Your task to perform on an android device: Search for dell xps on bestbuy.com, select the first entry, add it to the cart, then select checkout. Image 0: 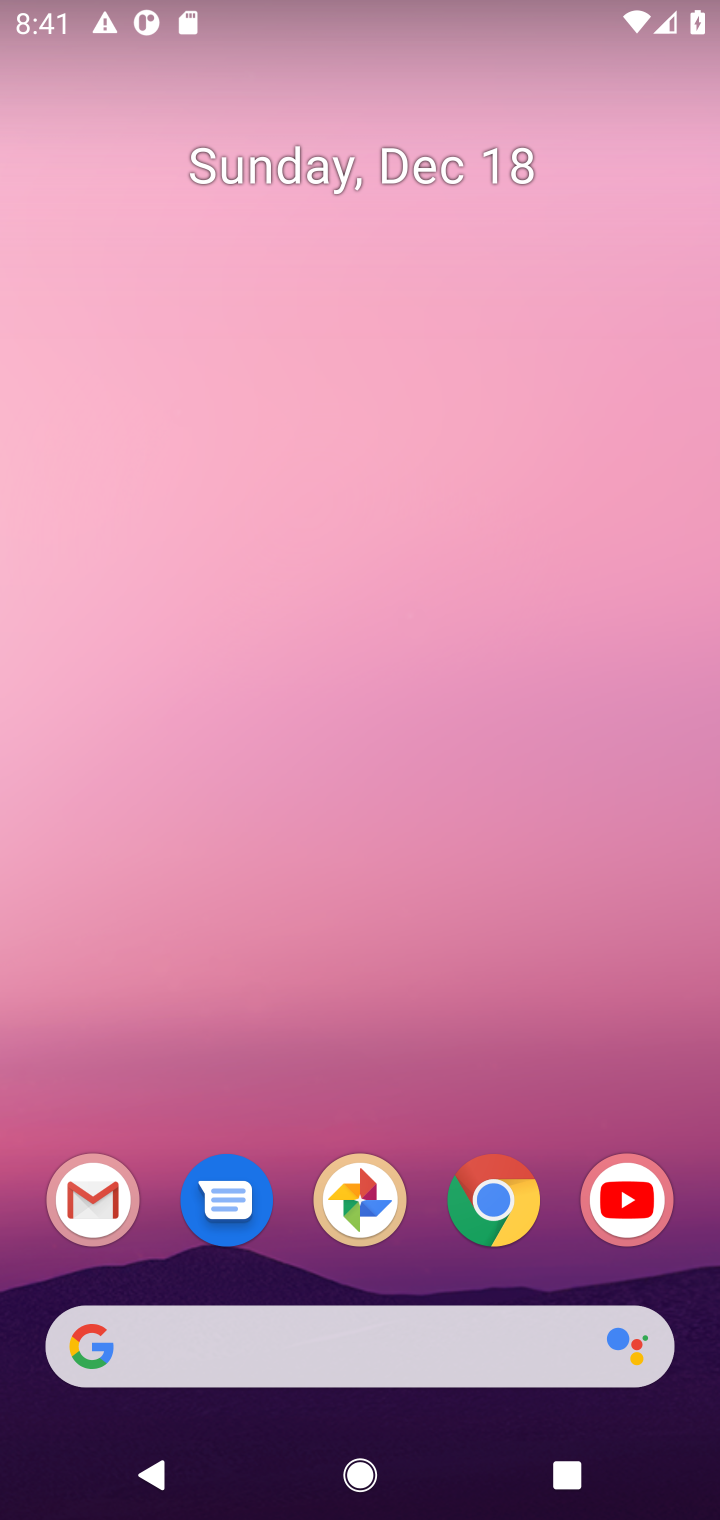
Step 0: click (503, 1215)
Your task to perform on an android device: Search for dell xps on bestbuy.com, select the first entry, add it to the cart, then select checkout. Image 1: 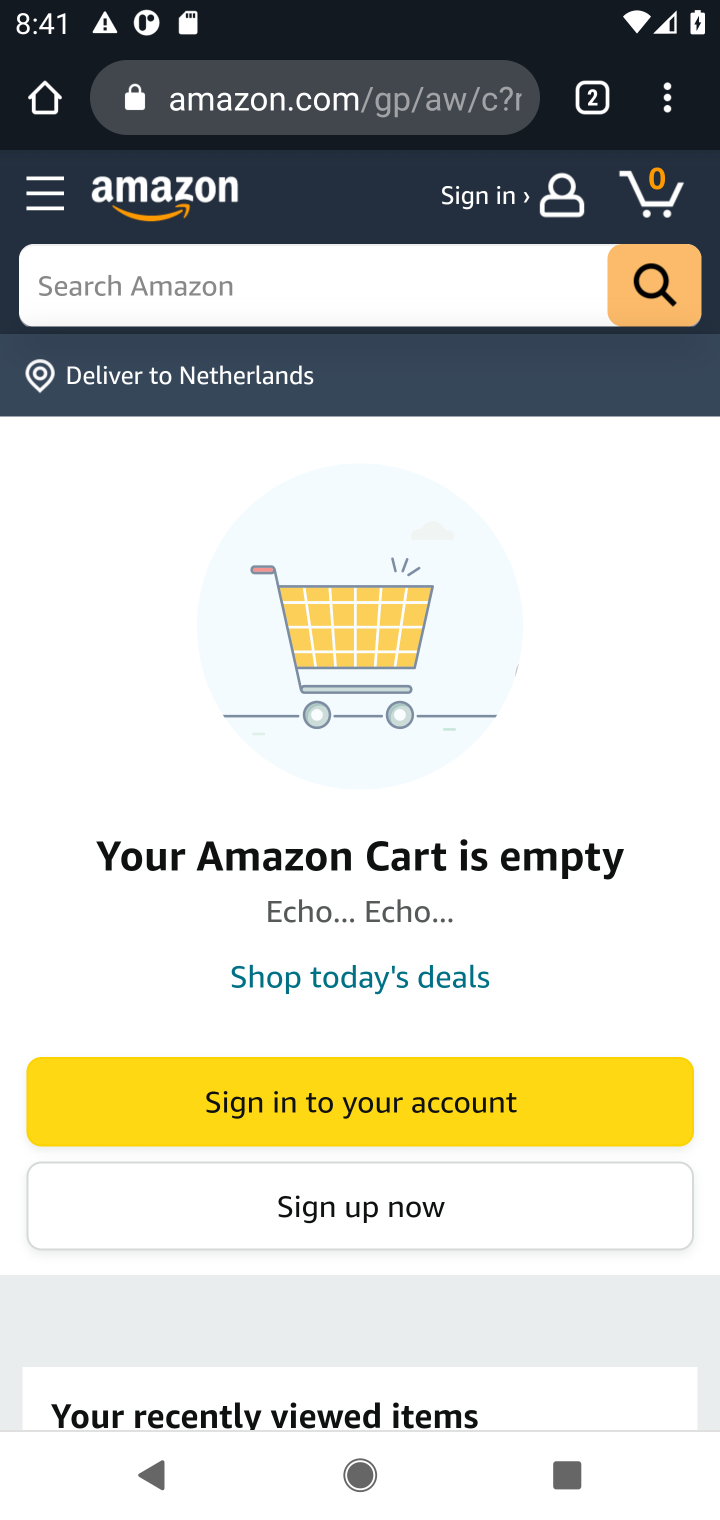
Step 1: click (271, 104)
Your task to perform on an android device: Search for dell xps on bestbuy.com, select the first entry, add it to the cart, then select checkout. Image 2: 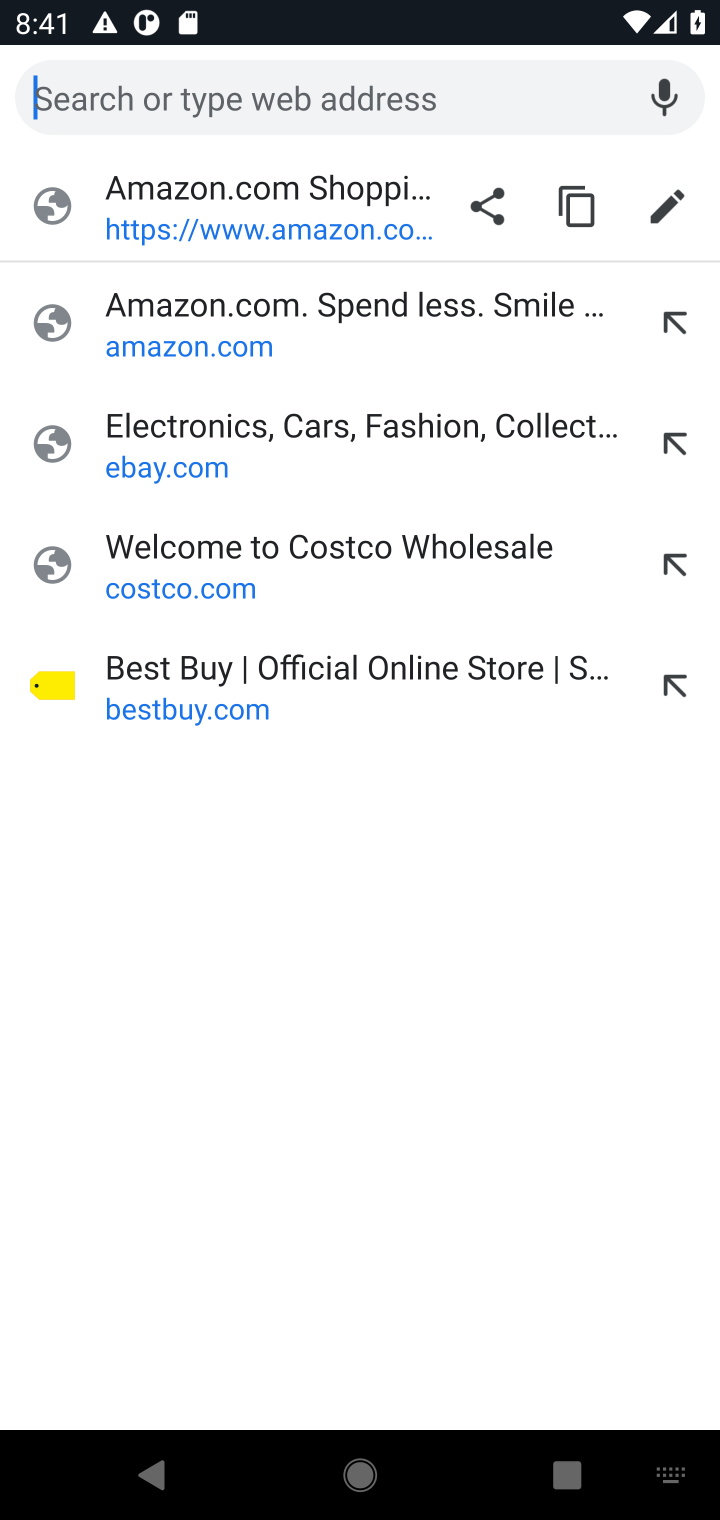
Step 2: click (181, 681)
Your task to perform on an android device: Search for dell xps on bestbuy.com, select the first entry, add it to the cart, then select checkout. Image 3: 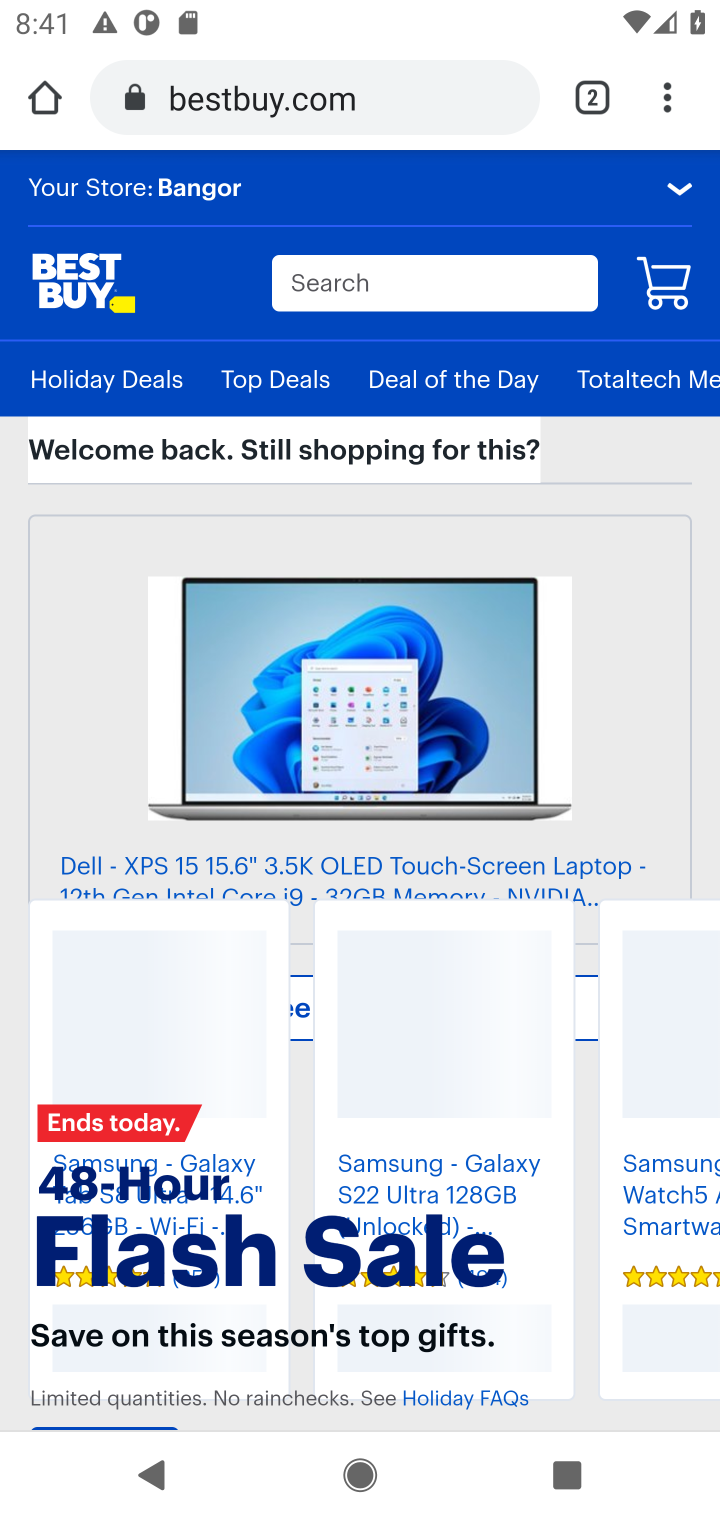
Step 3: click (337, 281)
Your task to perform on an android device: Search for dell xps on bestbuy.com, select the first entry, add it to the cart, then select checkout. Image 4: 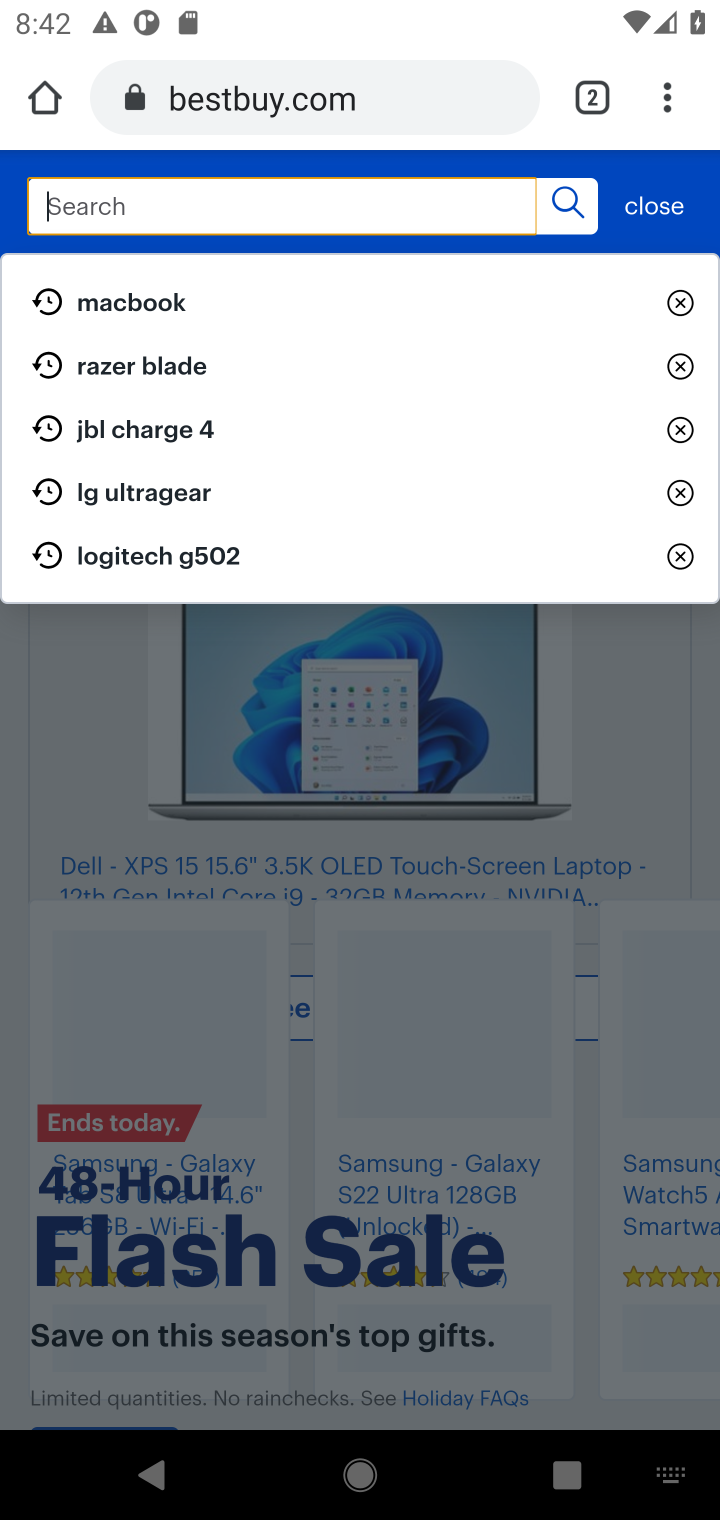
Step 4: type "dell xps "
Your task to perform on an android device: Search for dell xps on bestbuy.com, select the first entry, add it to the cart, then select checkout. Image 5: 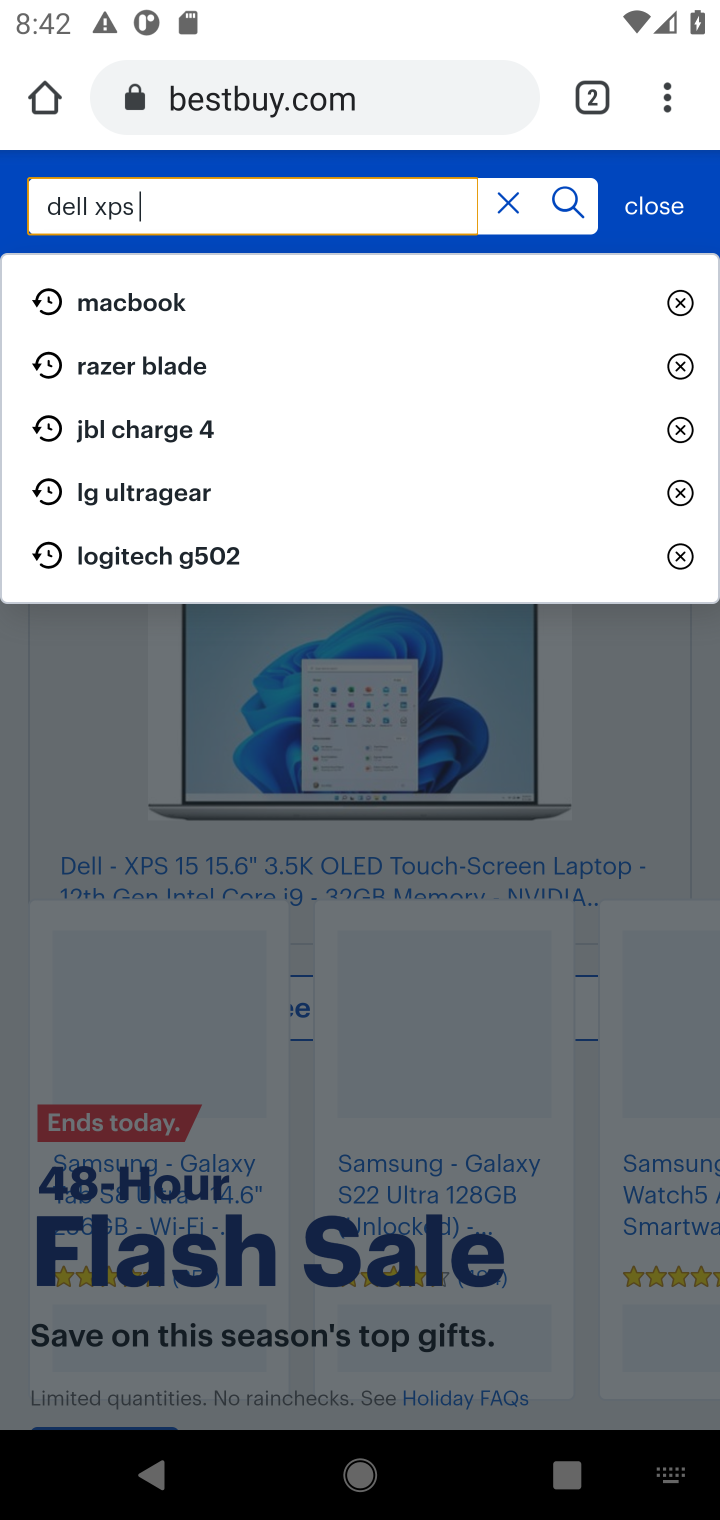
Step 5: click (569, 205)
Your task to perform on an android device: Search for dell xps on bestbuy.com, select the first entry, add it to the cart, then select checkout. Image 6: 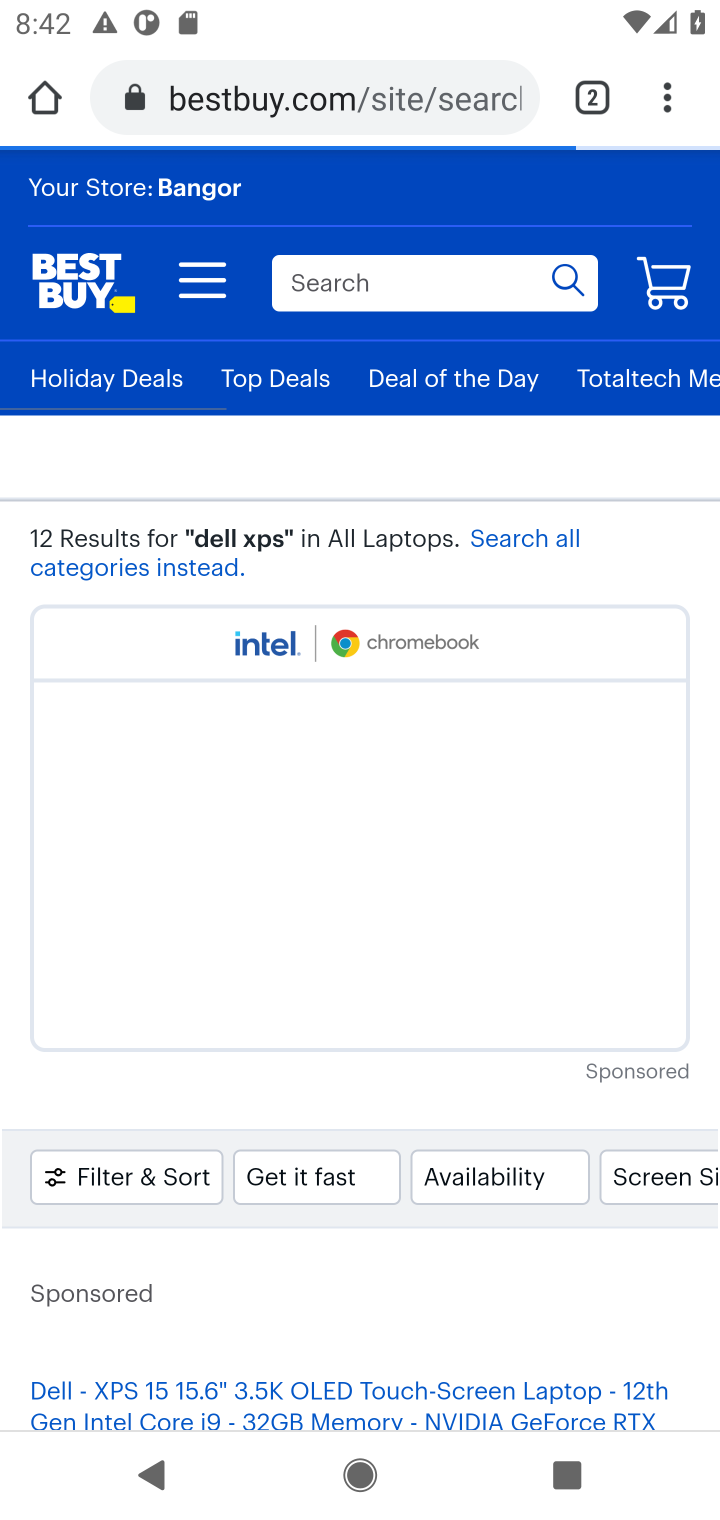
Step 6: click (558, 201)
Your task to perform on an android device: Search for dell xps on bestbuy.com, select the first entry, add it to the cart, then select checkout. Image 7: 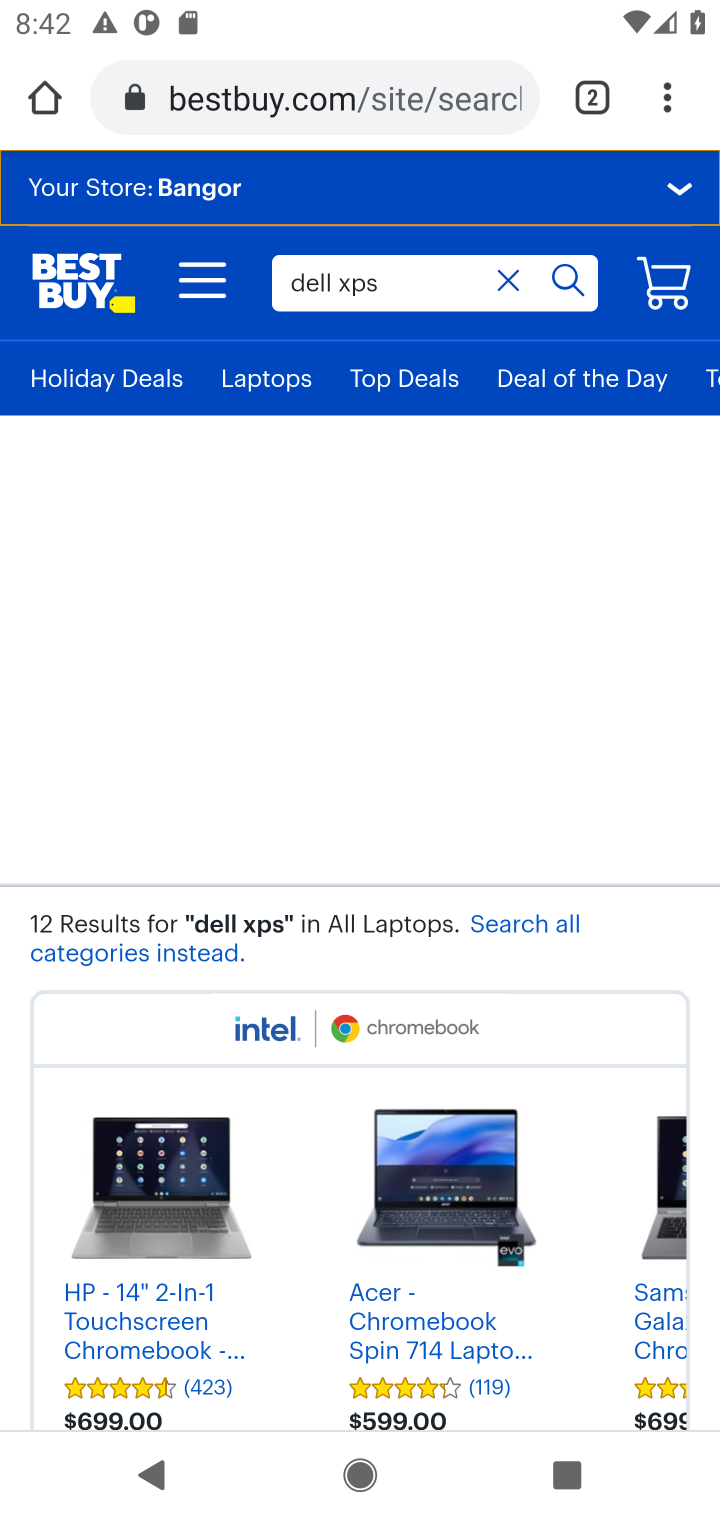
Step 7: drag from (188, 929) to (219, 331)
Your task to perform on an android device: Search for dell xps on bestbuy.com, select the first entry, add it to the cart, then select checkout. Image 8: 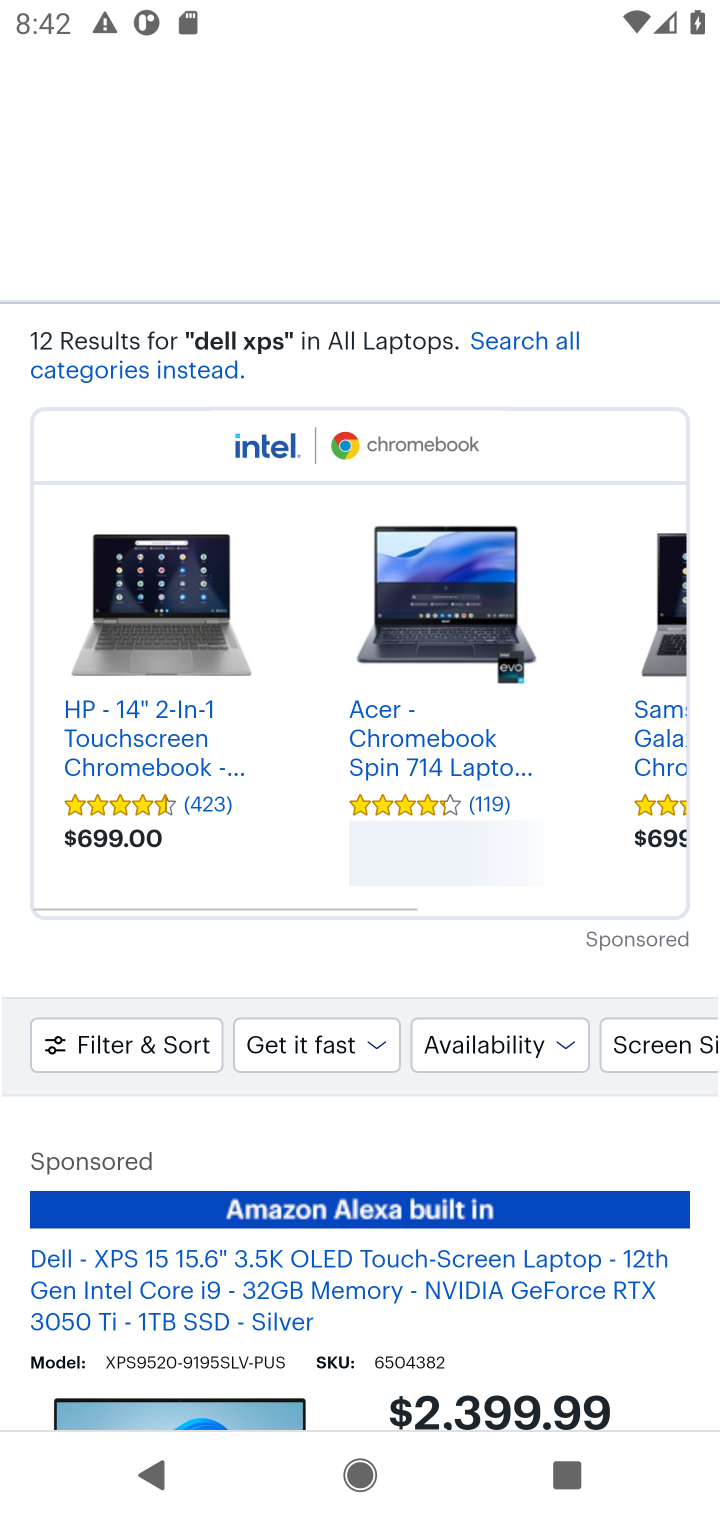
Step 8: drag from (274, 832) to (278, 365)
Your task to perform on an android device: Search for dell xps on bestbuy.com, select the first entry, add it to the cart, then select checkout. Image 9: 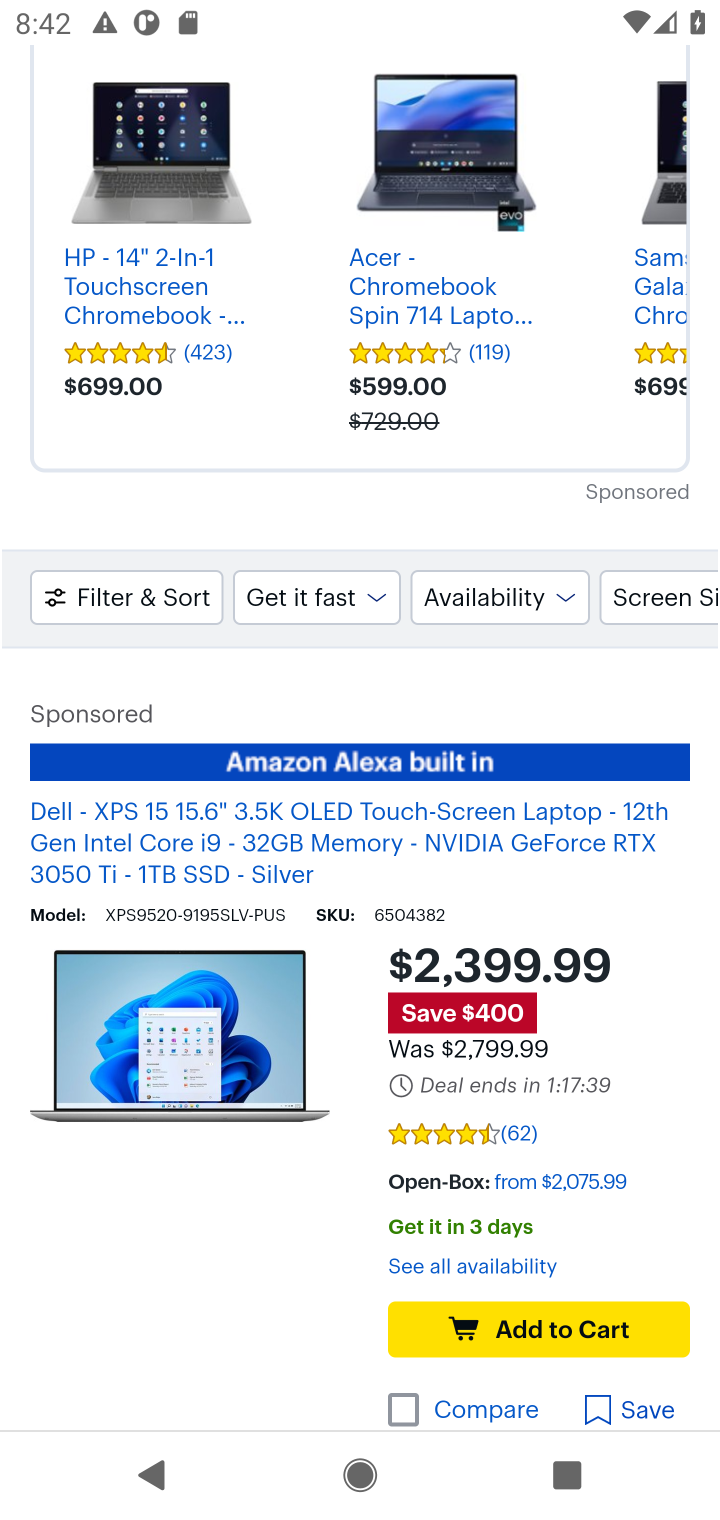
Step 9: click (565, 1333)
Your task to perform on an android device: Search for dell xps on bestbuy.com, select the first entry, add it to the cart, then select checkout. Image 10: 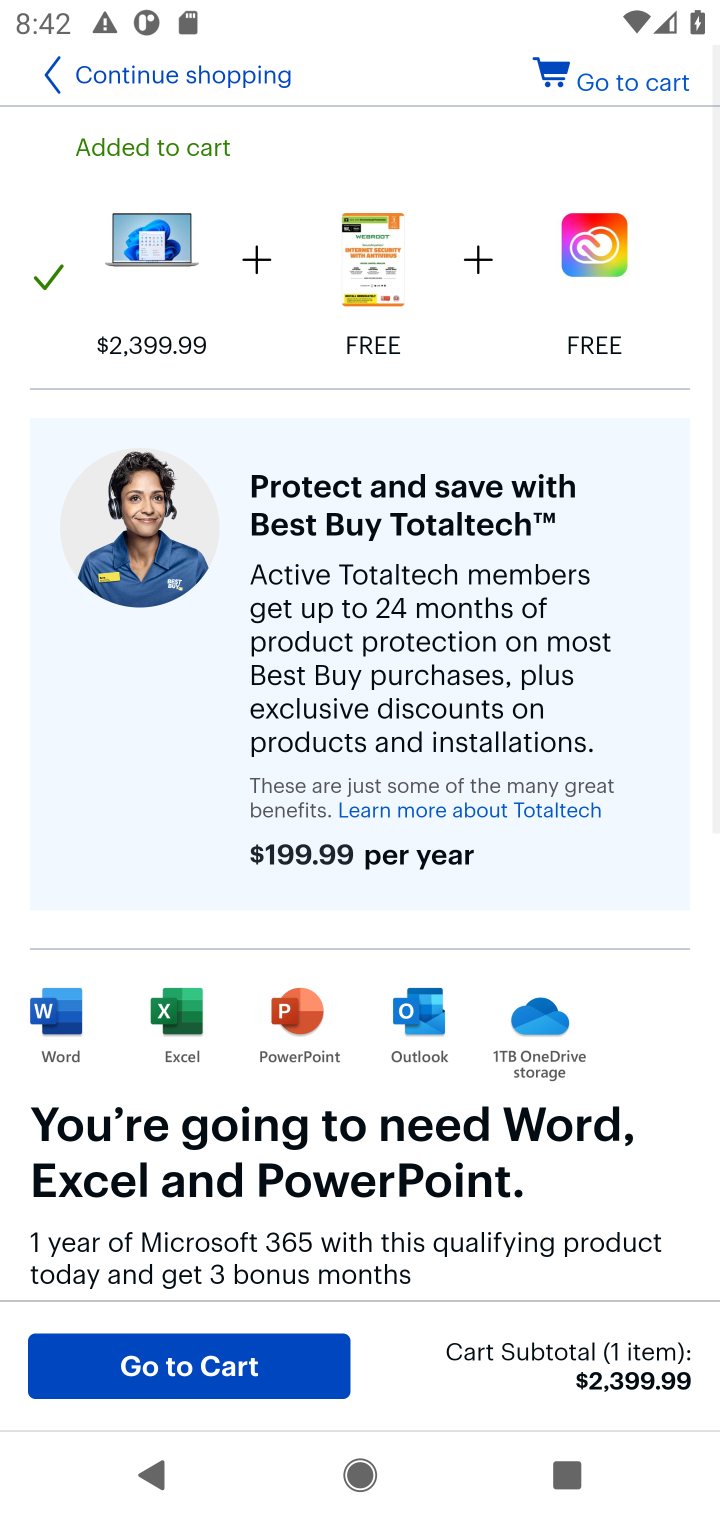
Step 10: click (627, 86)
Your task to perform on an android device: Search for dell xps on bestbuy.com, select the first entry, add it to the cart, then select checkout. Image 11: 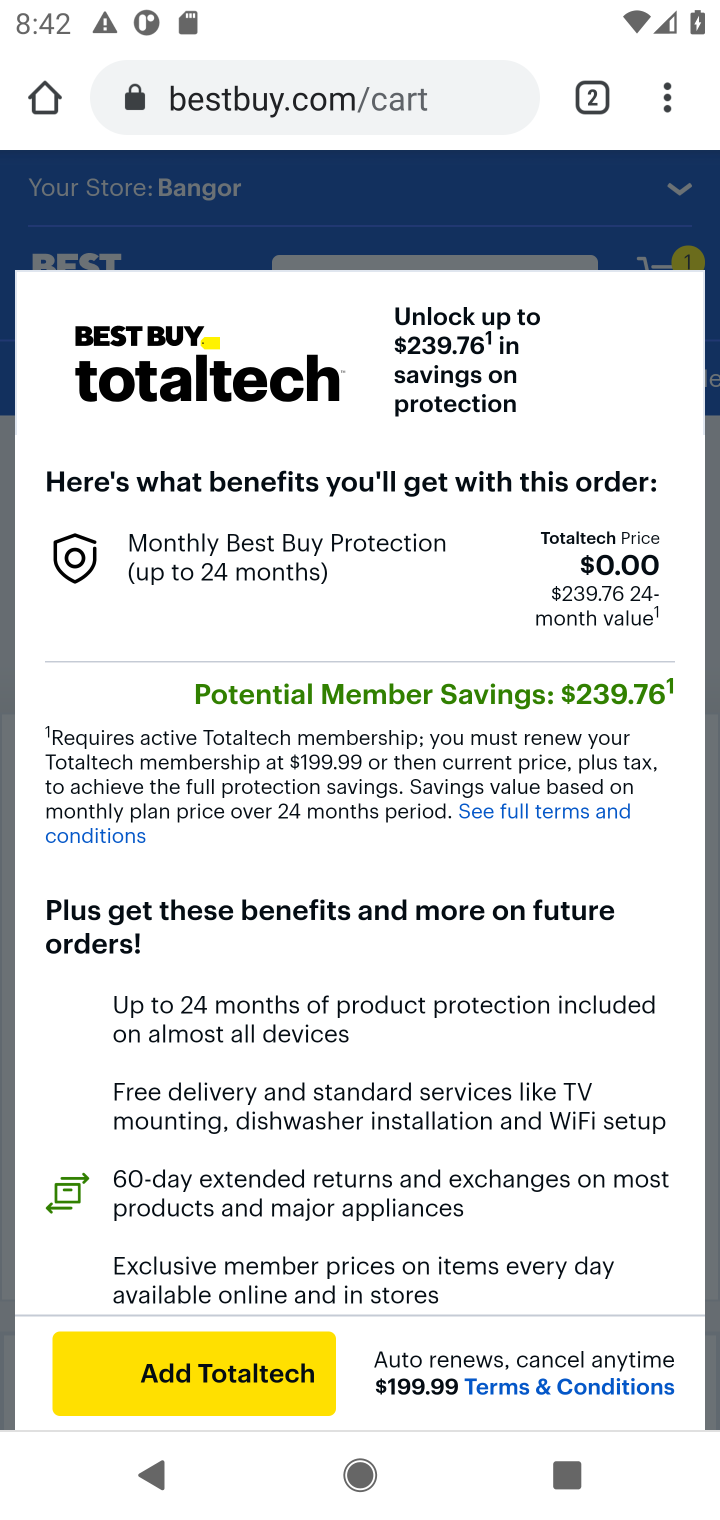
Step 11: click (327, 1218)
Your task to perform on an android device: Search for dell xps on bestbuy.com, select the first entry, add it to the cart, then select checkout. Image 12: 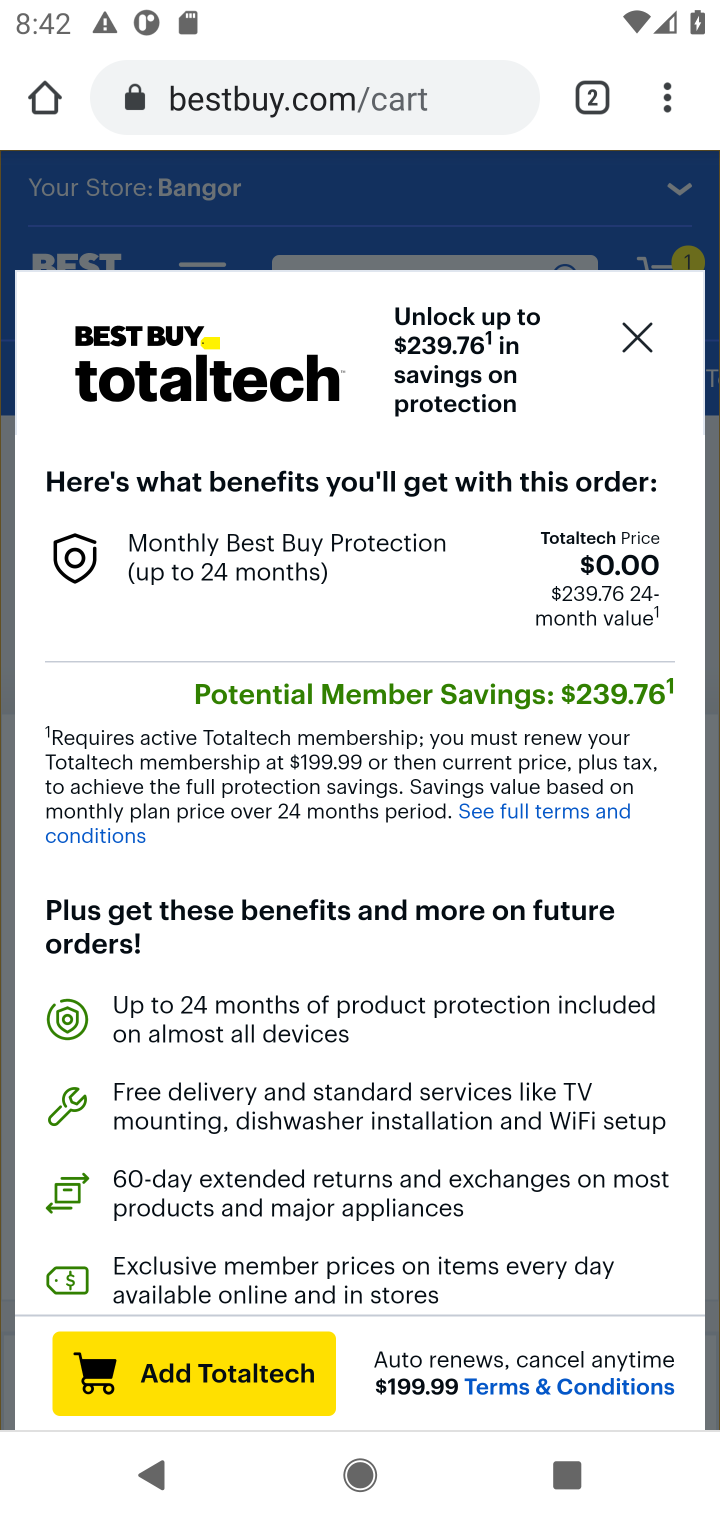
Step 12: click (641, 343)
Your task to perform on an android device: Search for dell xps on bestbuy.com, select the first entry, add it to the cart, then select checkout. Image 13: 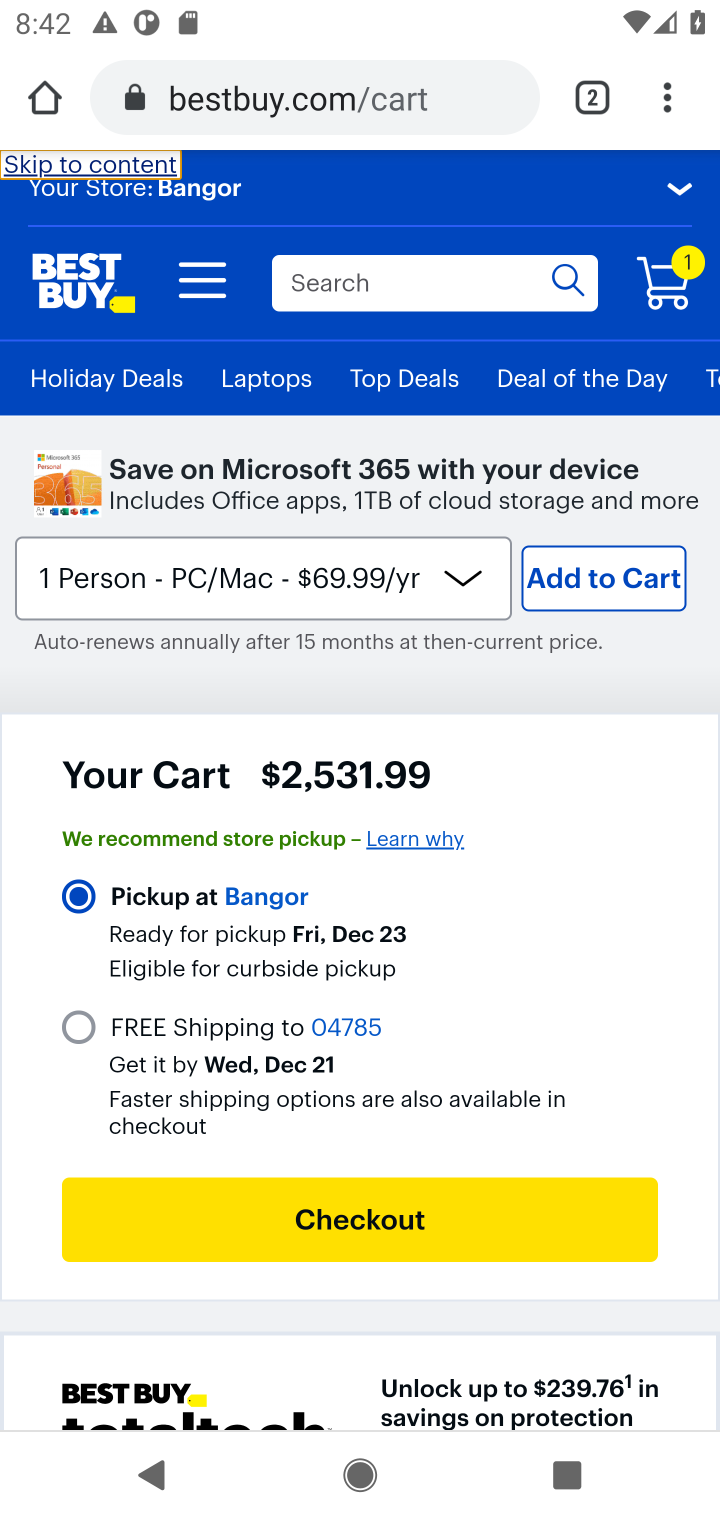
Step 13: click (322, 1223)
Your task to perform on an android device: Search for dell xps on bestbuy.com, select the first entry, add it to the cart, then select checkout. Image 14: 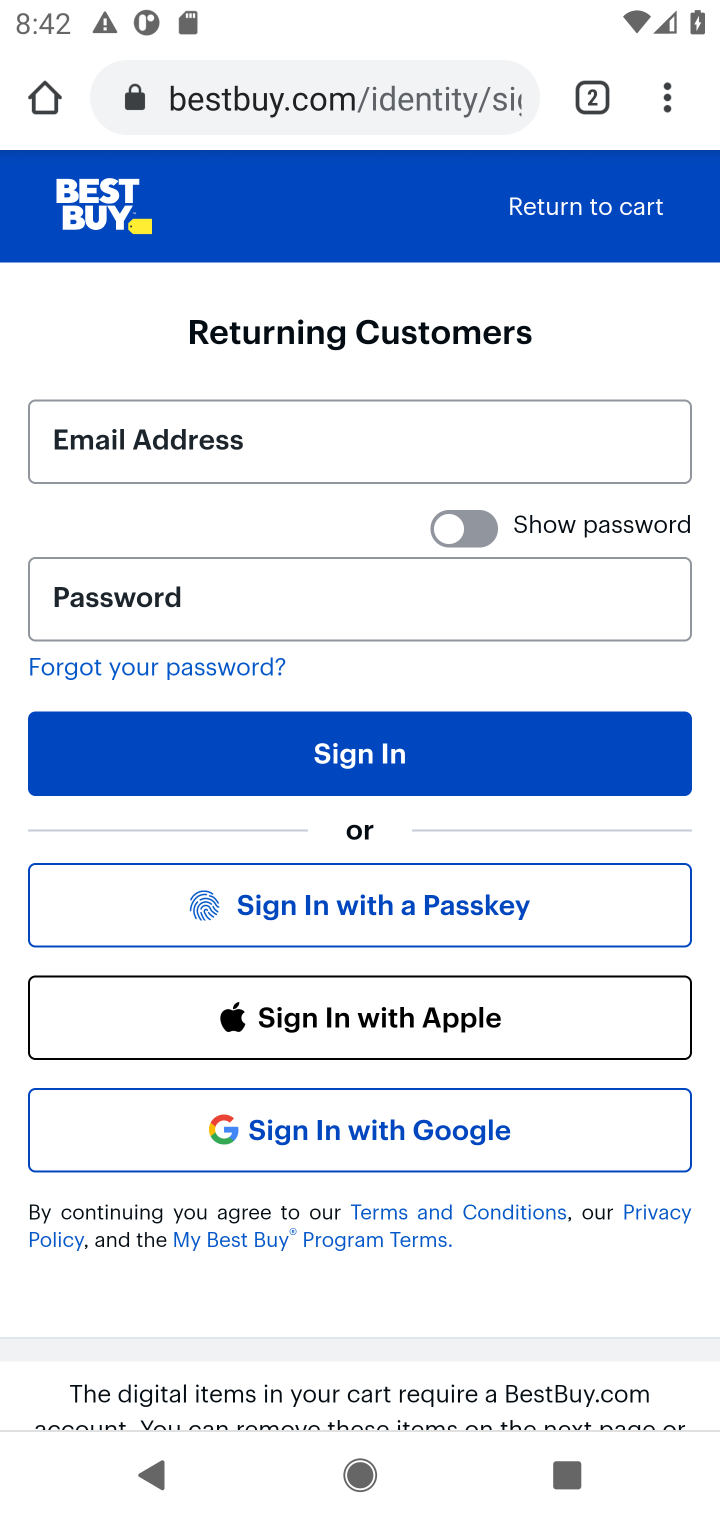
Step 14: task complete